Your task to perform on an android device: Open calendar and show me the third week of next month Image 0: 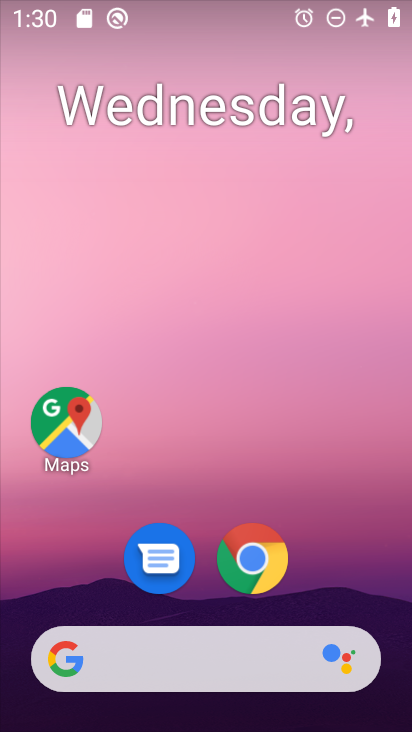
Step 0: drag from (394, 653) to (291, 174)
Your task to perform on an android device: Open calendar and show me the third week of next month Image 1: 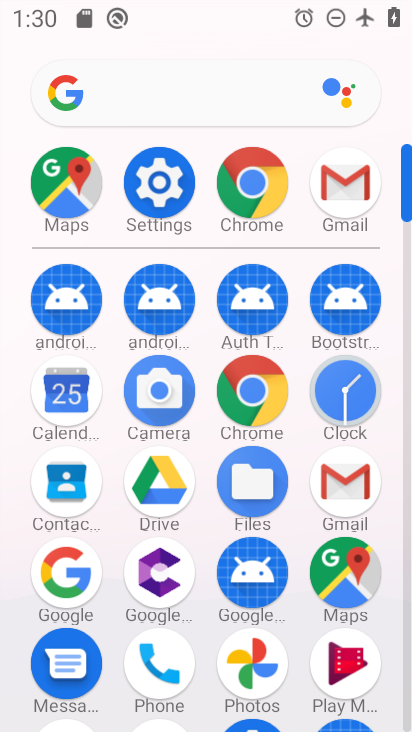
Step 1: click (69, 410)
Your task to perform on an android device: Open calendar and show me the third week of next month Image 2: 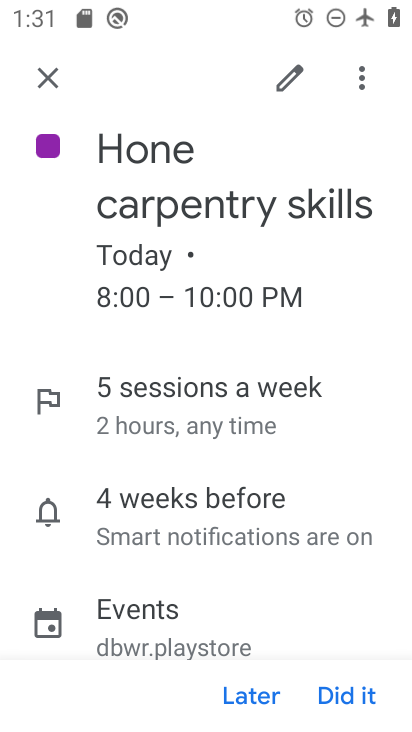
Step 2: press home button
Your task to perform on an android device: Open calendar and show me the third week of next month Image 3: 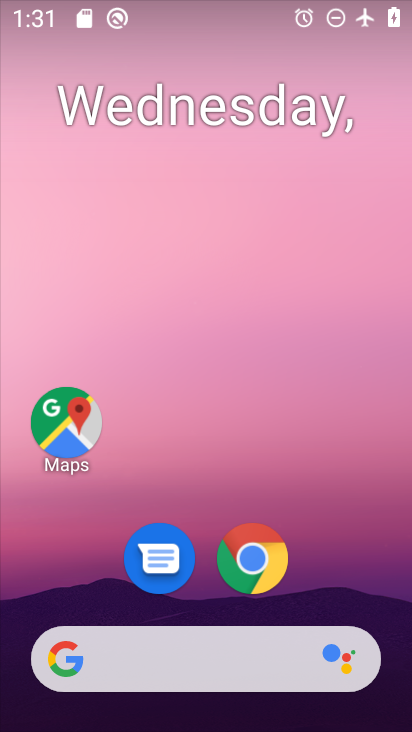
Step 3: drag from (396, 656) to (297, 215)
Your task to perform on an android device: Open calendar and show me the third week of next month Image 4: 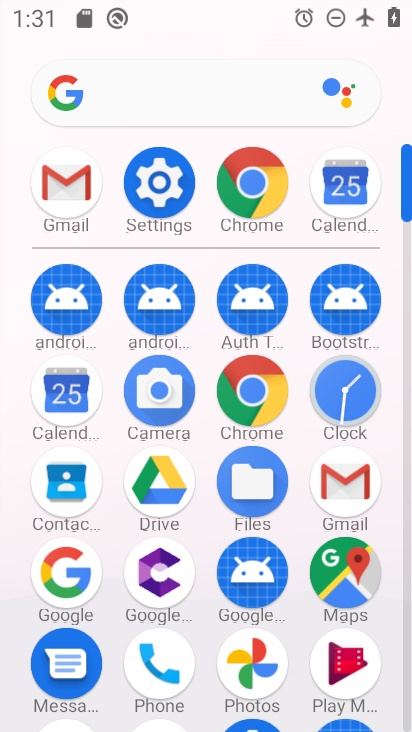
Step 4: click (76, 416)
Your task to perform on an android device: Open calendar and show me the third week of next month Image 5: 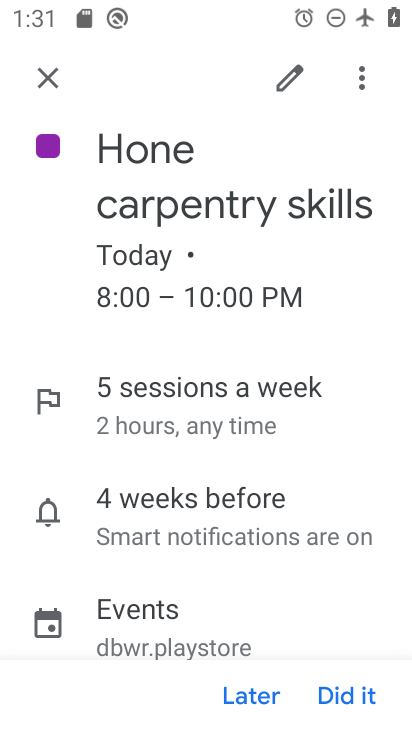
Step 5: press back button
Your task to perform on an android device: Open calendar and show me the third week of next month Image 6: 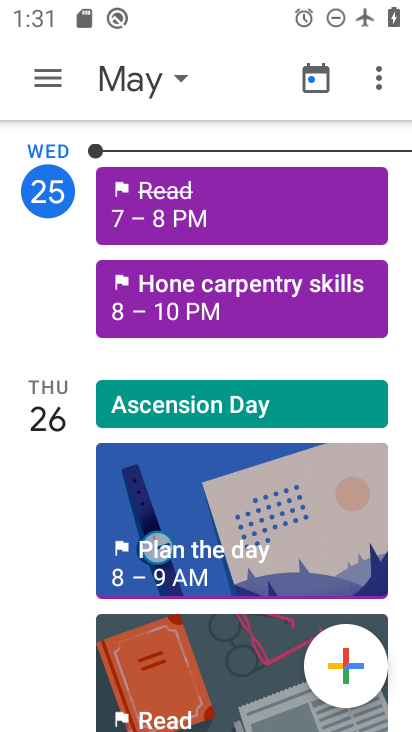
Step 6: click (141, 91)
Your task to perform on an android device: Open calendar and show me the third week of next month Image 7: 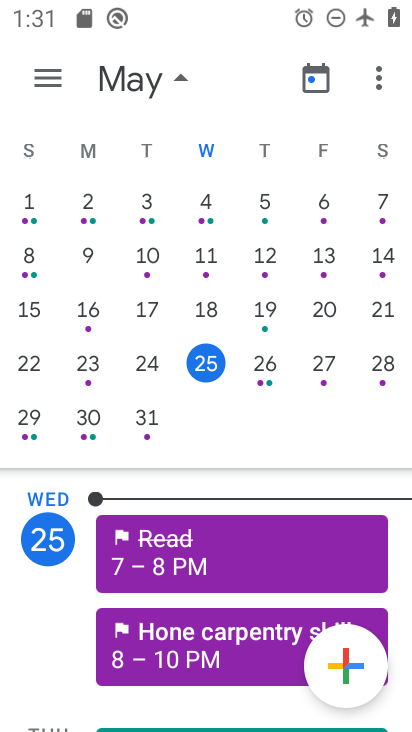
Step 7: drag from (351, 336) to (1, 303)
Your task to perform on an android device: Open calendar and show me the third week of next month Image 8: 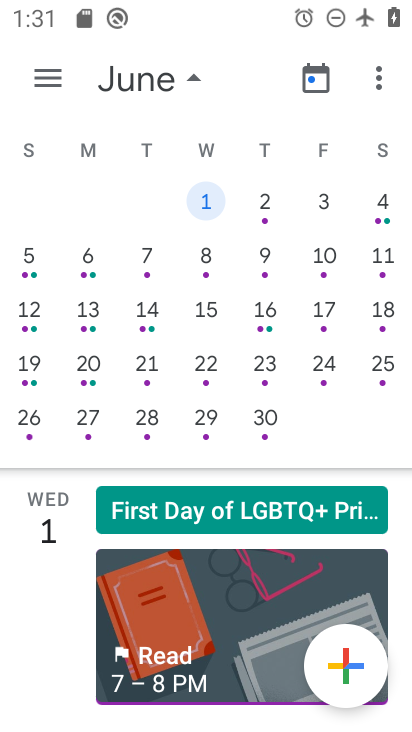
Step 8: click (92, 374)
Your task to perform on an android device: Open calendar and show me the third week of next month Image 9: 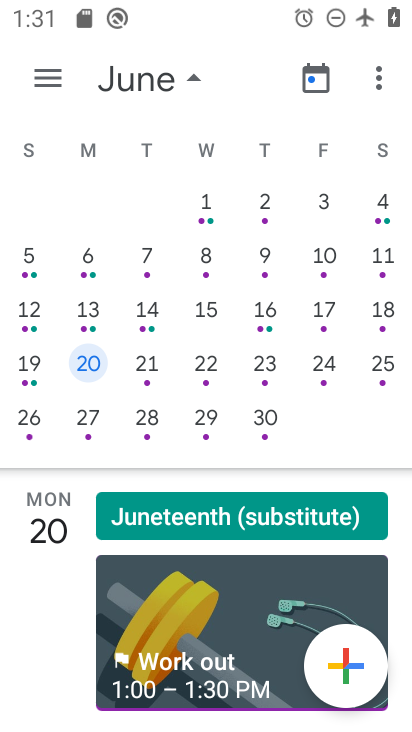
Step 9: task complete